Your task to perform on an android device: refresh tabs in the chrome app Image 0: 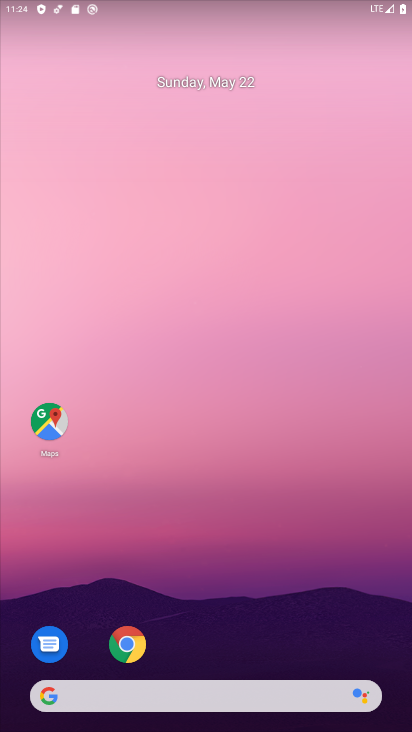
Step 0: click (127, 635)
Your task to perform on an android device: refresh tabs in the chrome app Image 1: 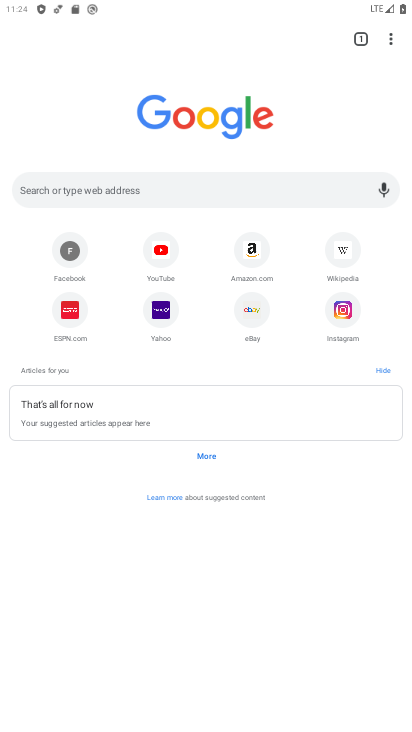
Step 1: click (399, 33)
Your task to perform on an android device: refresh tabs in the chrome app Image 2: 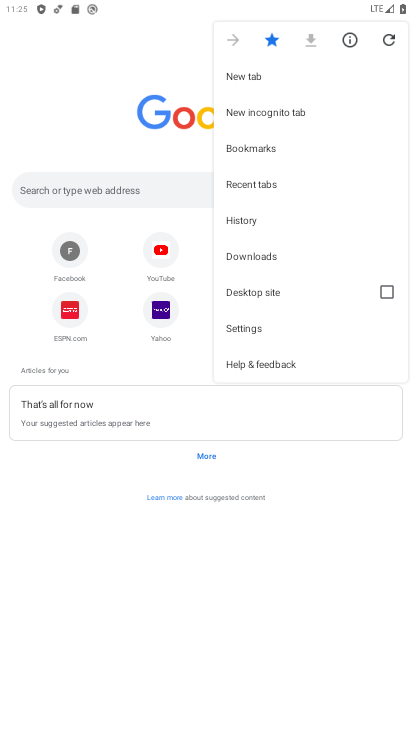
Step 2: click (389, 42)
Your task to perform on an android device: refresh tabs in the chrome app Image 3: 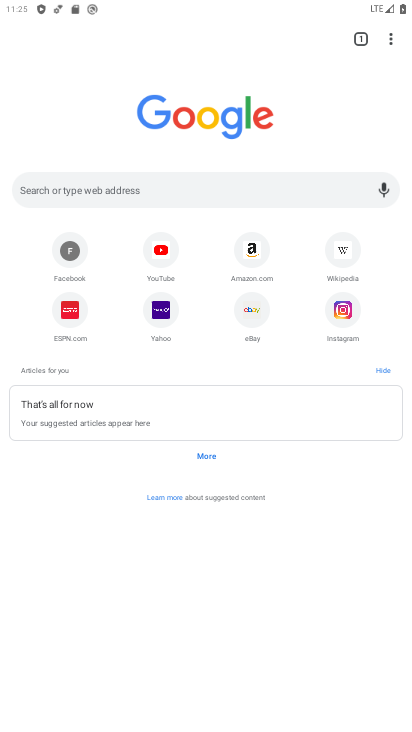
Step 3: task complete